Your task to perform on an android device: toggle wifi Image 0: 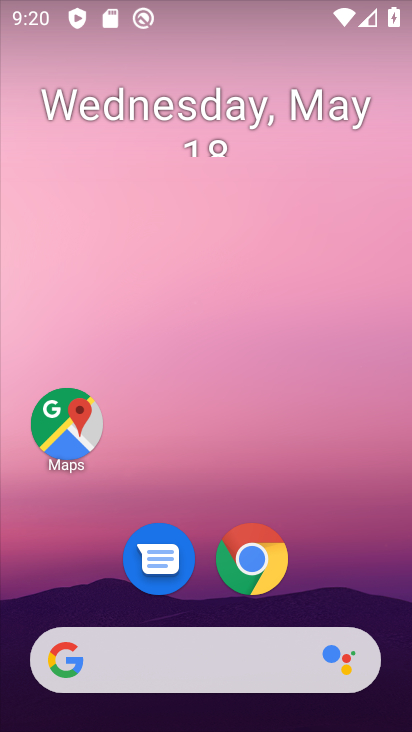
Step 0: drag from (310, 567) to (218, 4)
Your task to perform on an android device: toggle wifi Image 1: 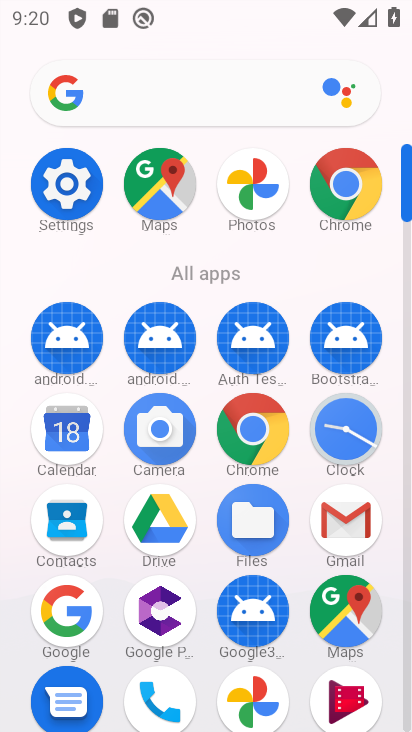
Step 1: click (67, 186)
Your task to perform on an android device: toggle wifi Image 2: 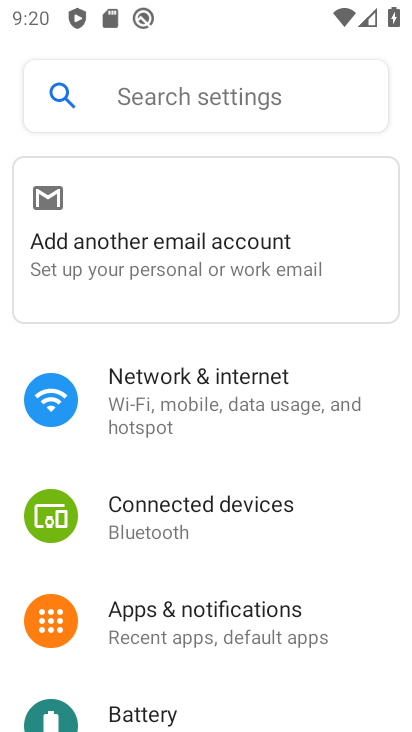
Step 2: drag from (318, 600) to (338, 188)
Your task to perform on an android device: toggle wifi Image 3: 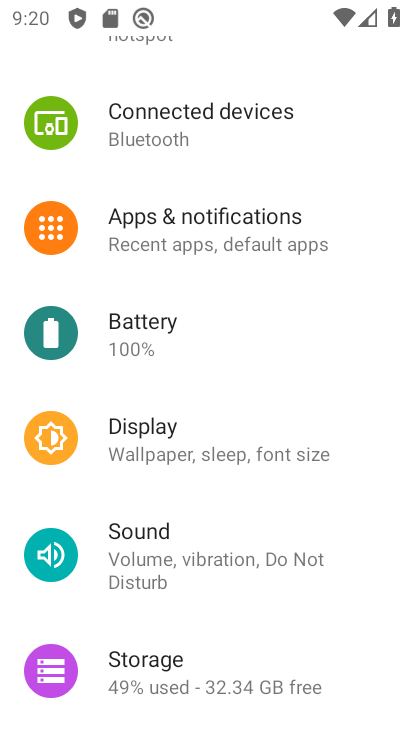
Step 3: drag from (287, 161) to (288, 577)
Your task to perform on an android device: toggle wifi Image 4: 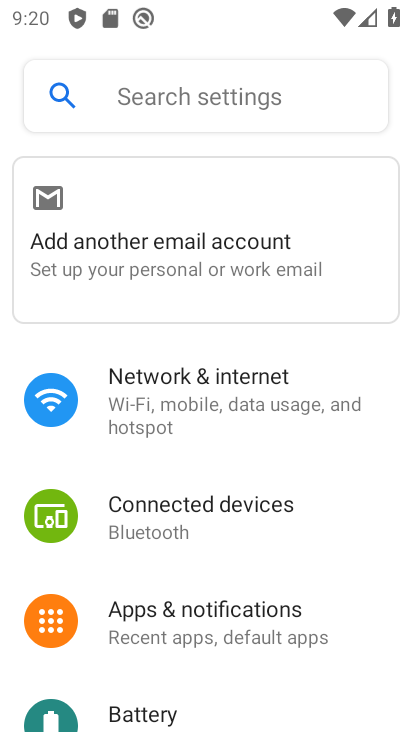
Step 4: click (201, 341)
Your task to perform on an android device: toggle wifi Image 5: 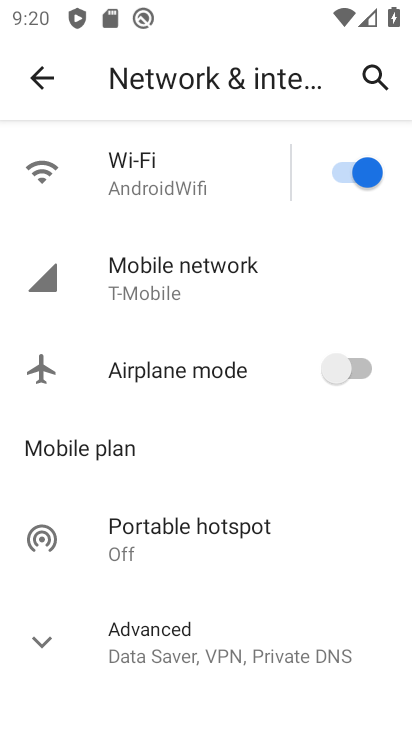
Step 5: click (338, 170)
Your task to perform on an android device: toggle wifi Image 6: 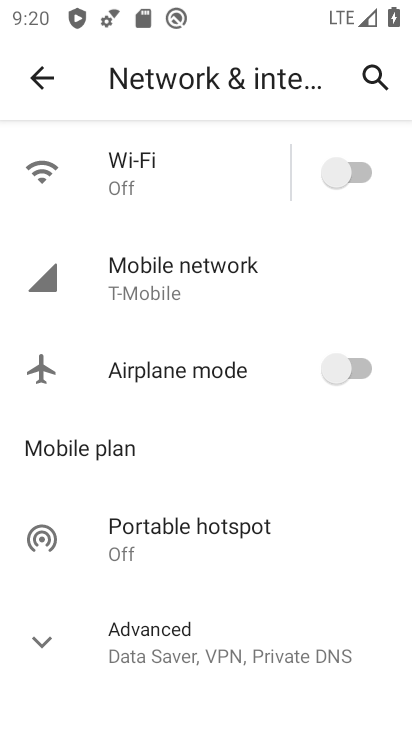
Step 6: task complete